Your task to perform on an android device: What's on my calendar today? Image 0: 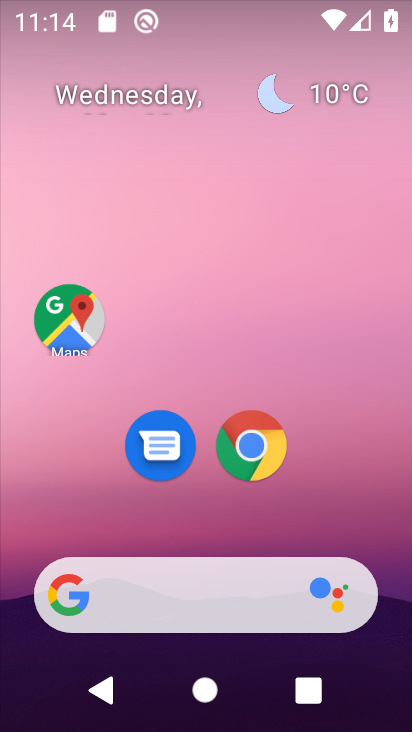
Step 0: drag from (178, 506) to (235, 2)
Your task to perform on an android device: What's on my calendar today? Image 1: 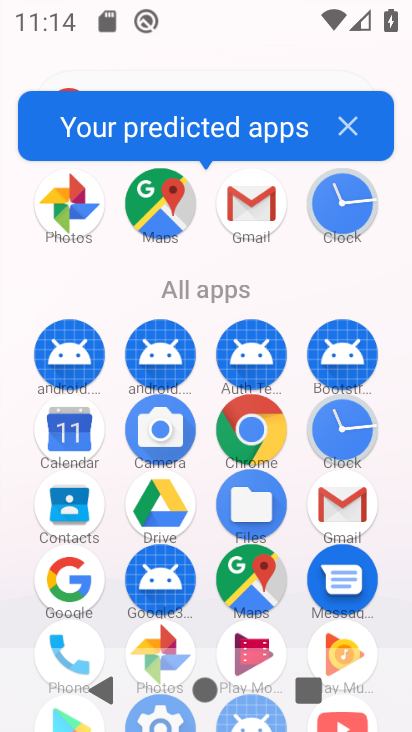
Step 1: click (65, 424)
Your task to perform on an android device: What's on my calendar today? Image 2: 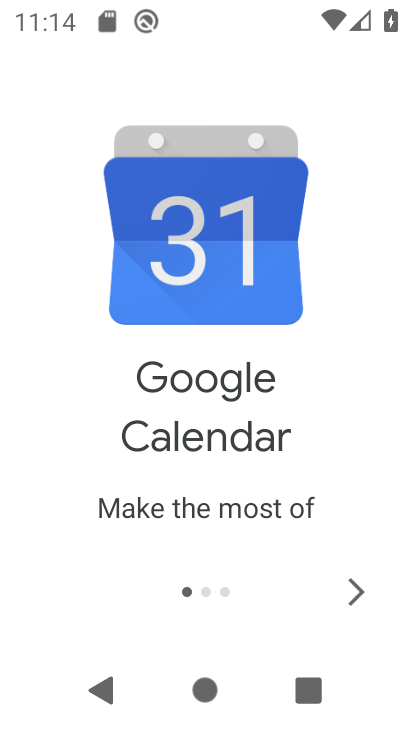
Step 2: click (370, 585)
Your task to perform on an android device: What's on my calendar today? Image 3: 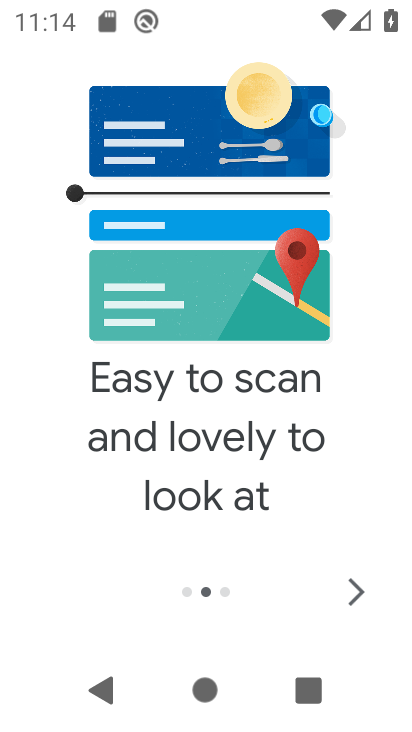
Step 3: click (333, 582)
Your task to perform on an android device: What's on my calendar today? Image 4: 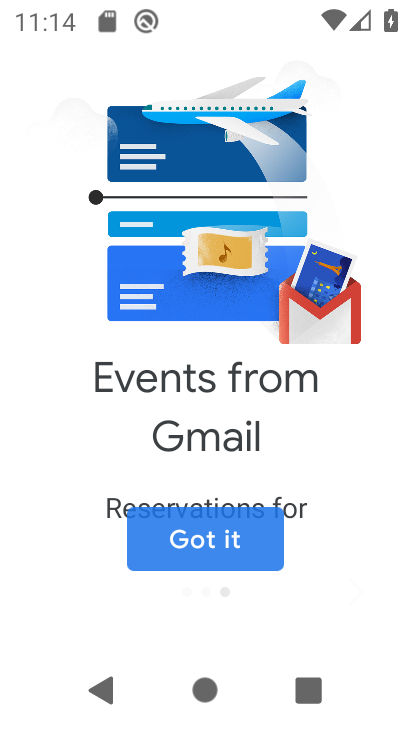
Step 4: click (343, 581)
Your task to perform on an android device: What's on my calendar today? Image 5: 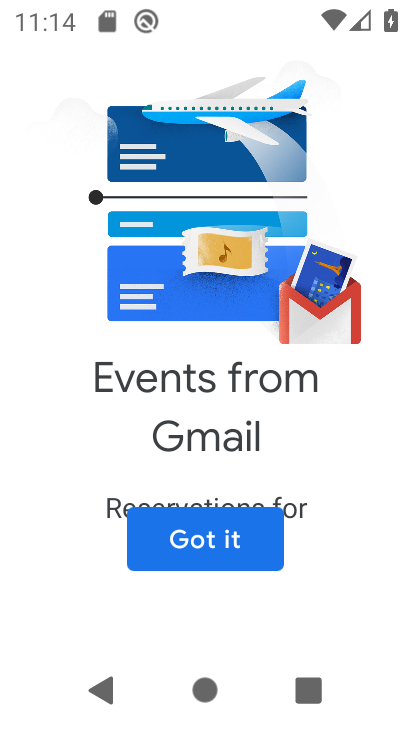
Step 5: click (242, 541)
Your task to perform on an android device: What's on my calendar today? Image 6: 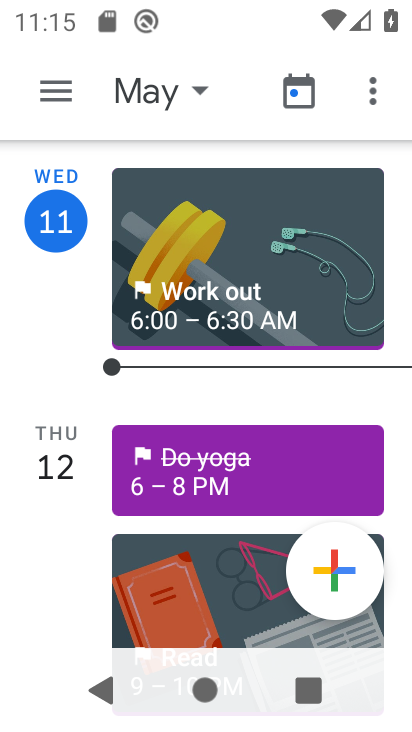
Step 6: drag from (216, 569) to (299, 163)
Your task to perform on an android device: What's on my calendar today? Image 7: 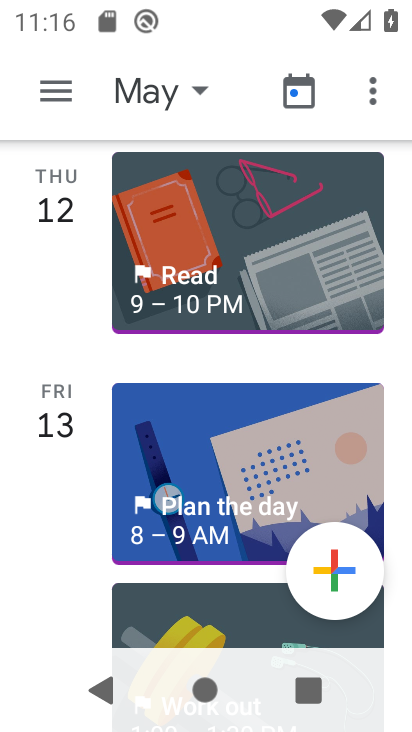
Step 7: click (245, 244)
Your task to perform on an android device: What's on my calendar today? Image 8: 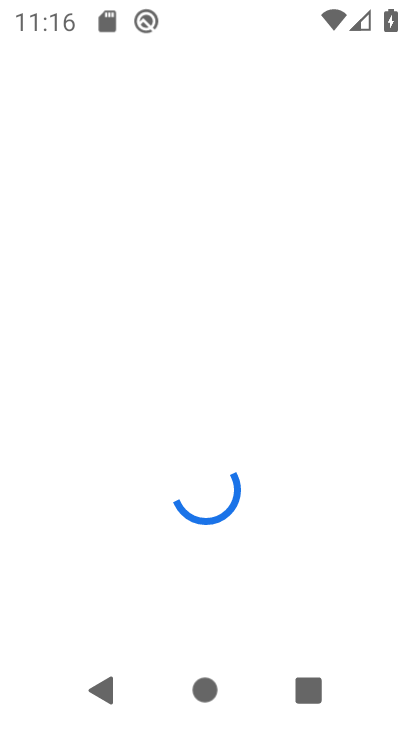
Step 8: task complete